Your task to perform on an android device: How much does a 3 bedroom apartment rent for in Seattle? Image 0: 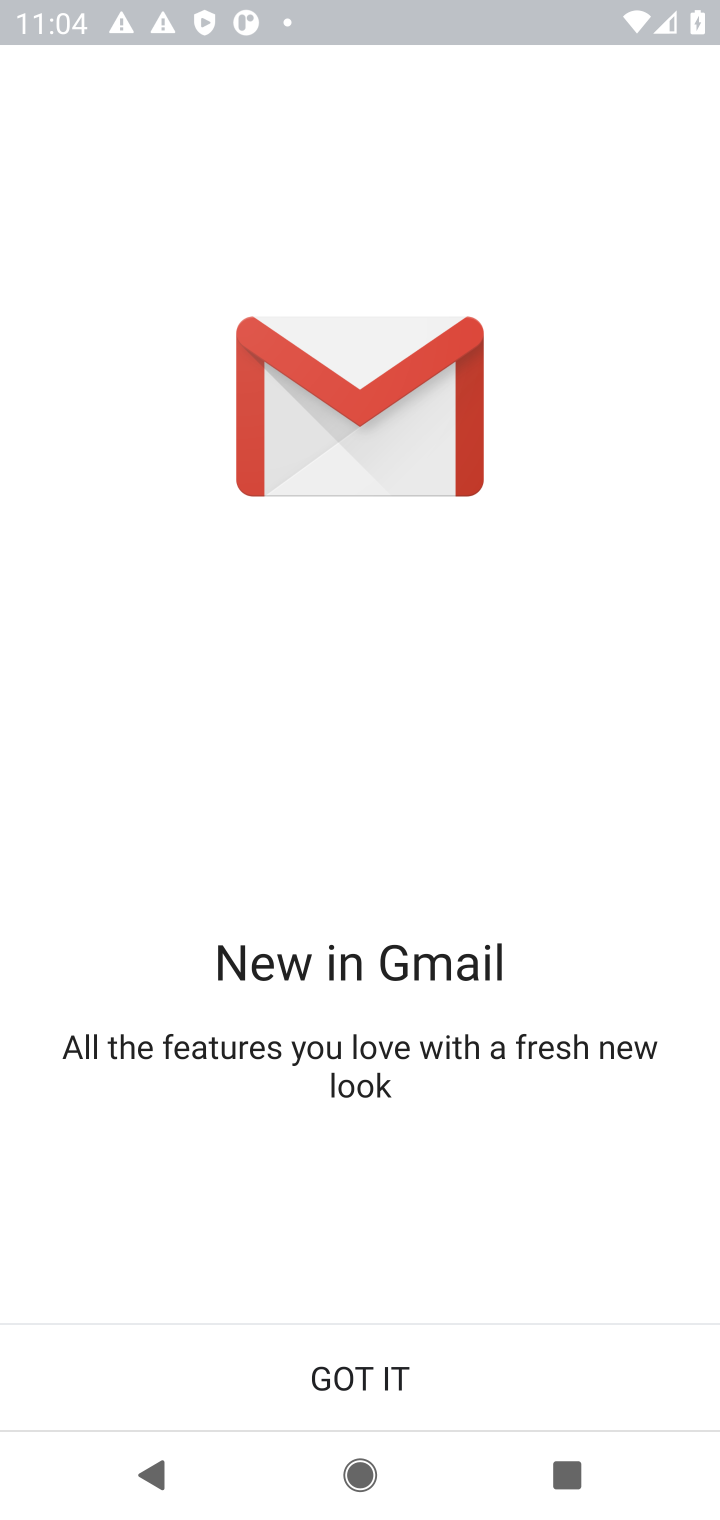
Step 0: press home button
Your task to perform on an android device: How much does a 3 bedroom apartment rent for in Seattle? Image 1: 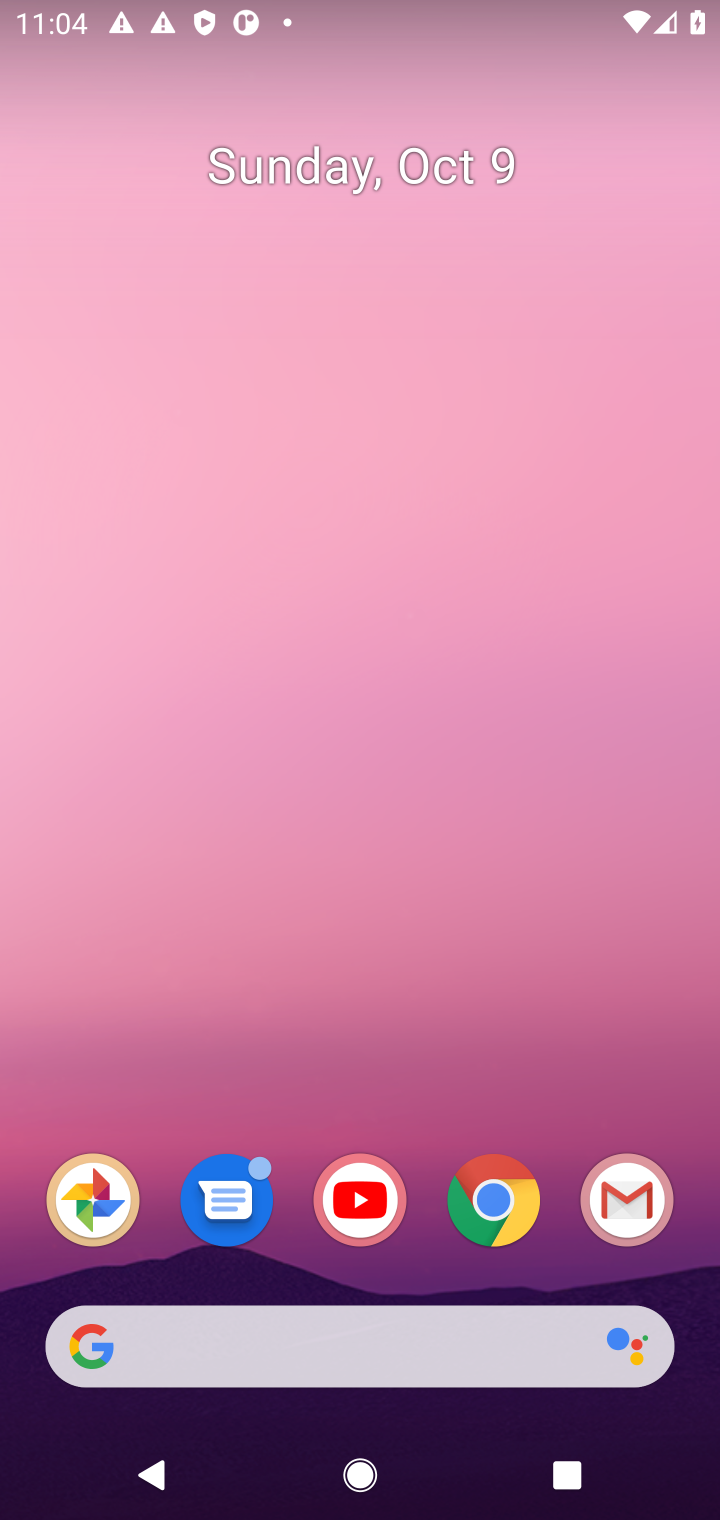
Step 1: click (506, 1193)
Your task to perform on an android device: How much does a 3 bedroom apartment rent for in Seattle? Image 2: 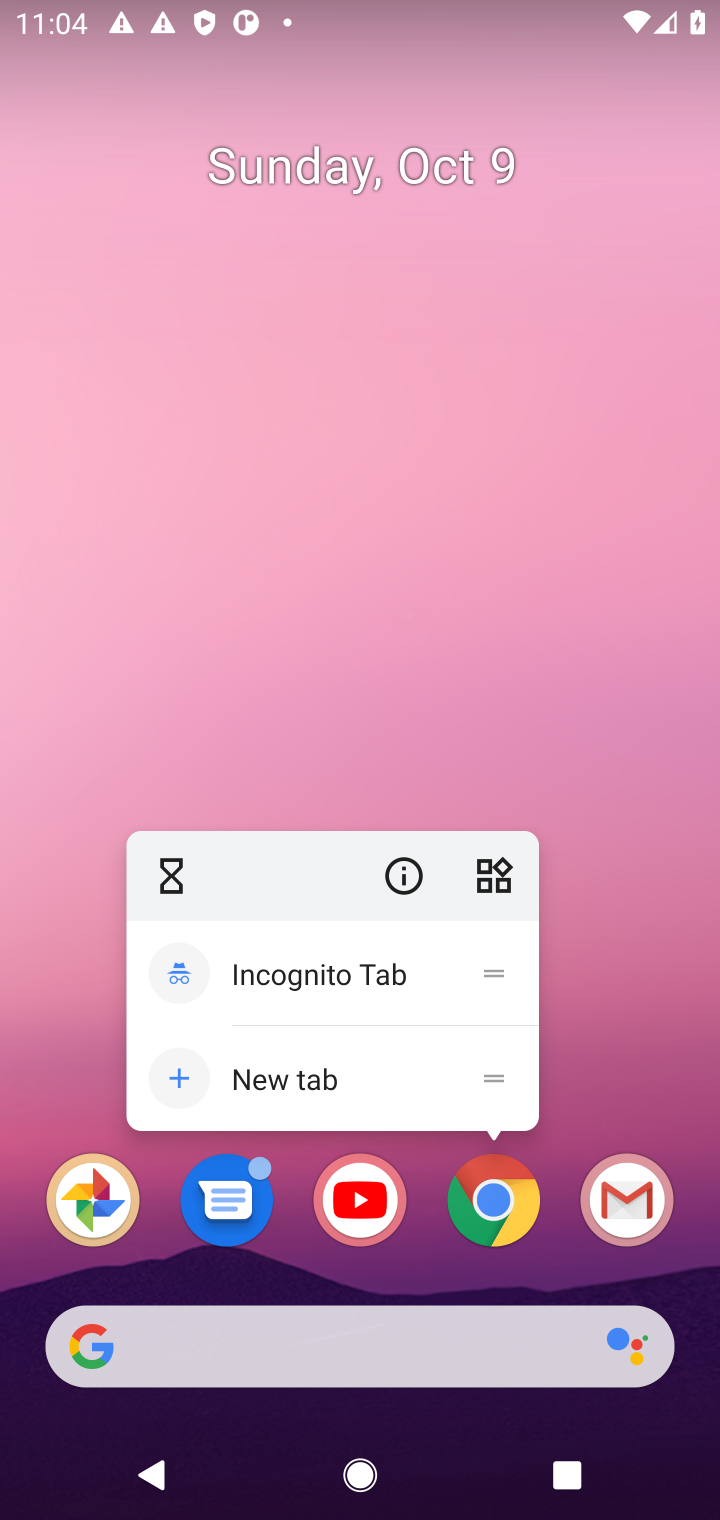
Step 2: click (478, 1227)
Your task to perform on an android device: How much does a 3 bedroom apartment rent for in Seattle? Image 3: 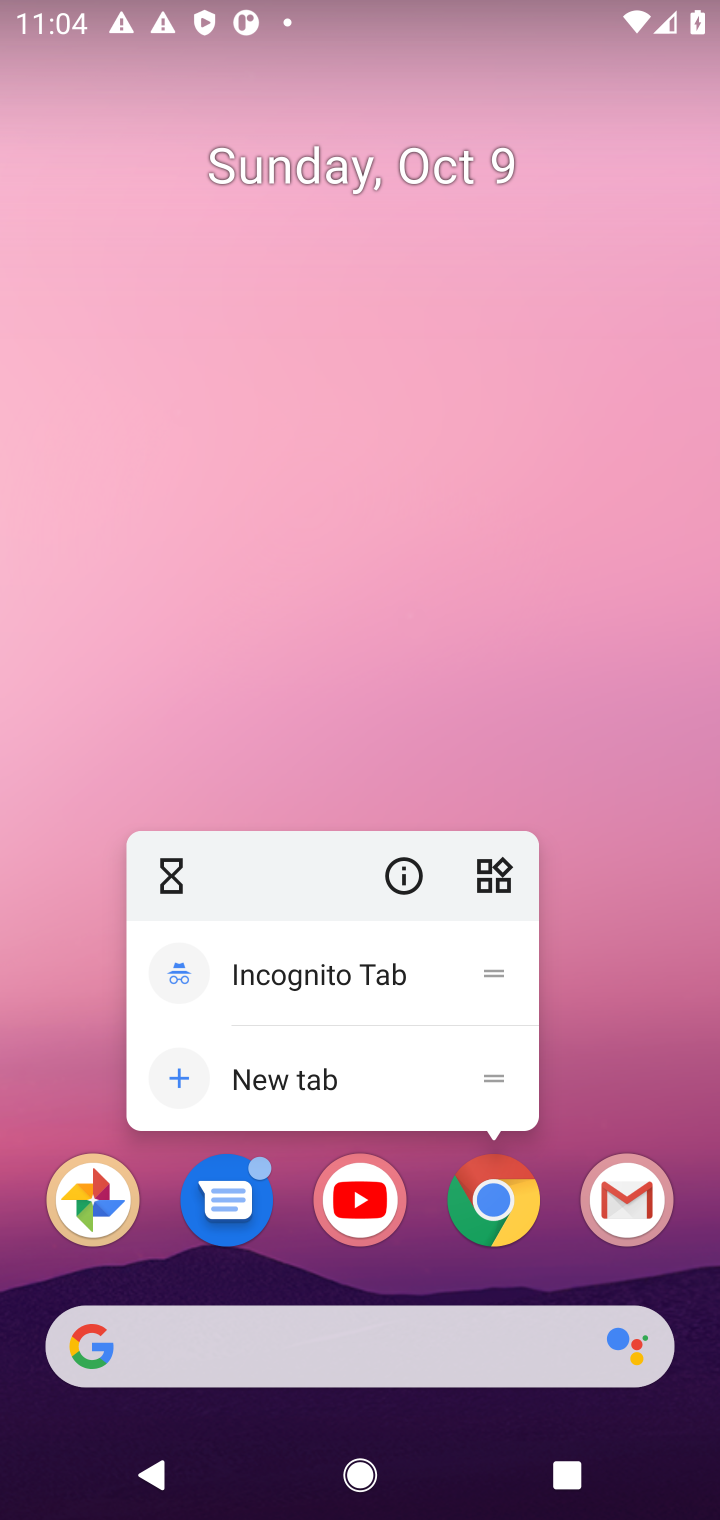
Step 3: click (504, 1222)
Your task to perform on an android device: How much does a 3 bedroom apartment rent for in Seattle? Image 4: 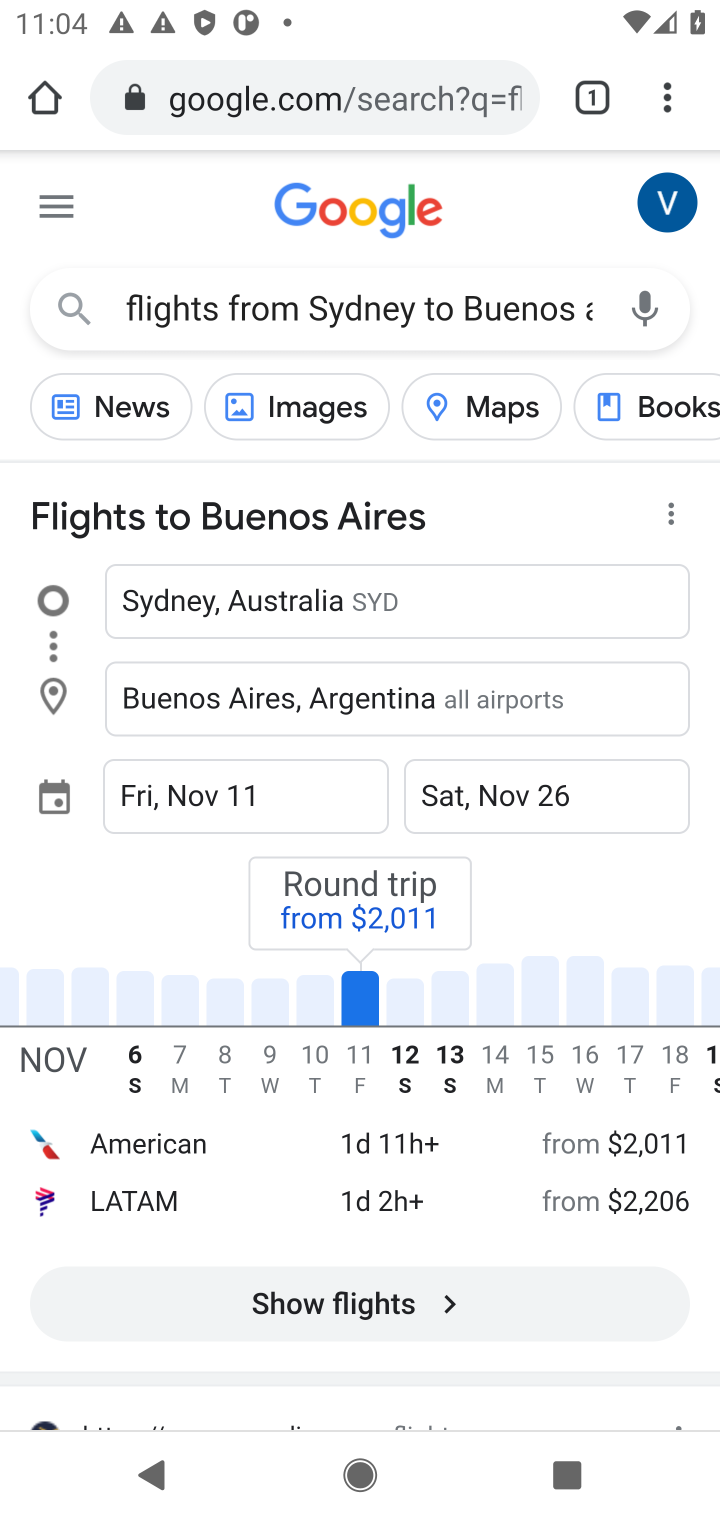
Step 4: click (340, 77)
Your task to perform on an android device: How much does a 3 bedroom apartment rent for in Seattle? Image 5: 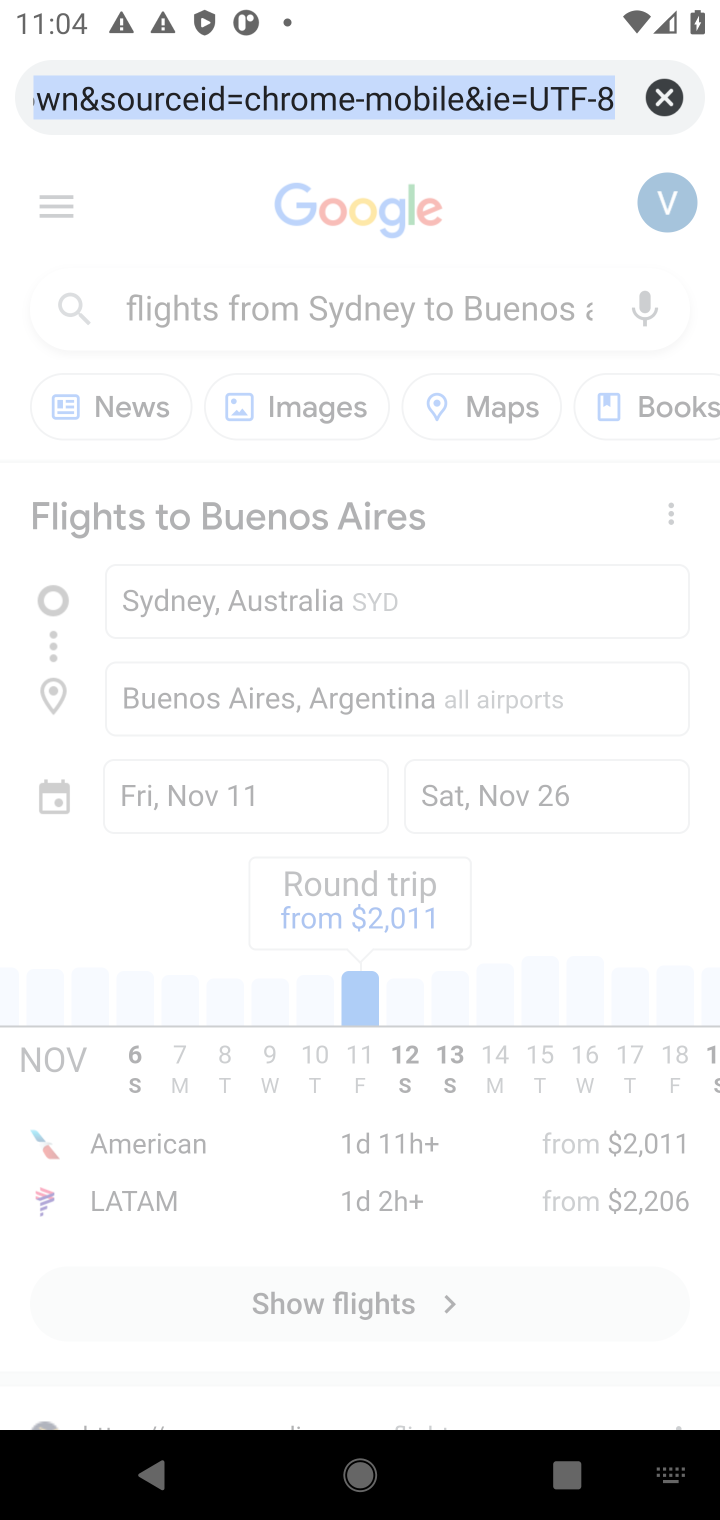
Step 5: type "How much does a 3 bedroom apartment rent for in Seattle?"
Your task to perform on an android device: How much does a 3 bedroom apartment rent for in Seattle? Image 6: 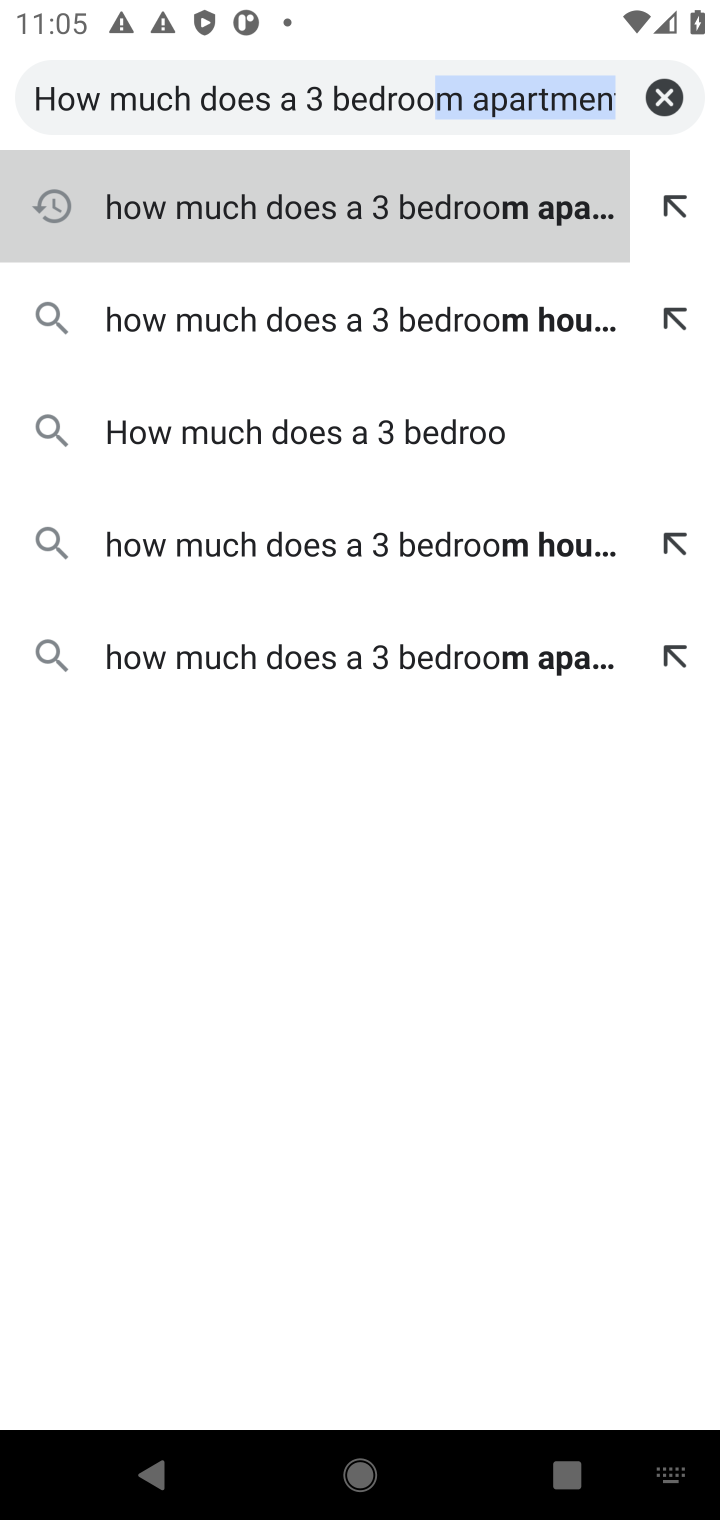
Step 6: click (210, 176)
Your task to perform on an android device: How much does a 3 bedroom apartment rent for in Seattle? Image 7: 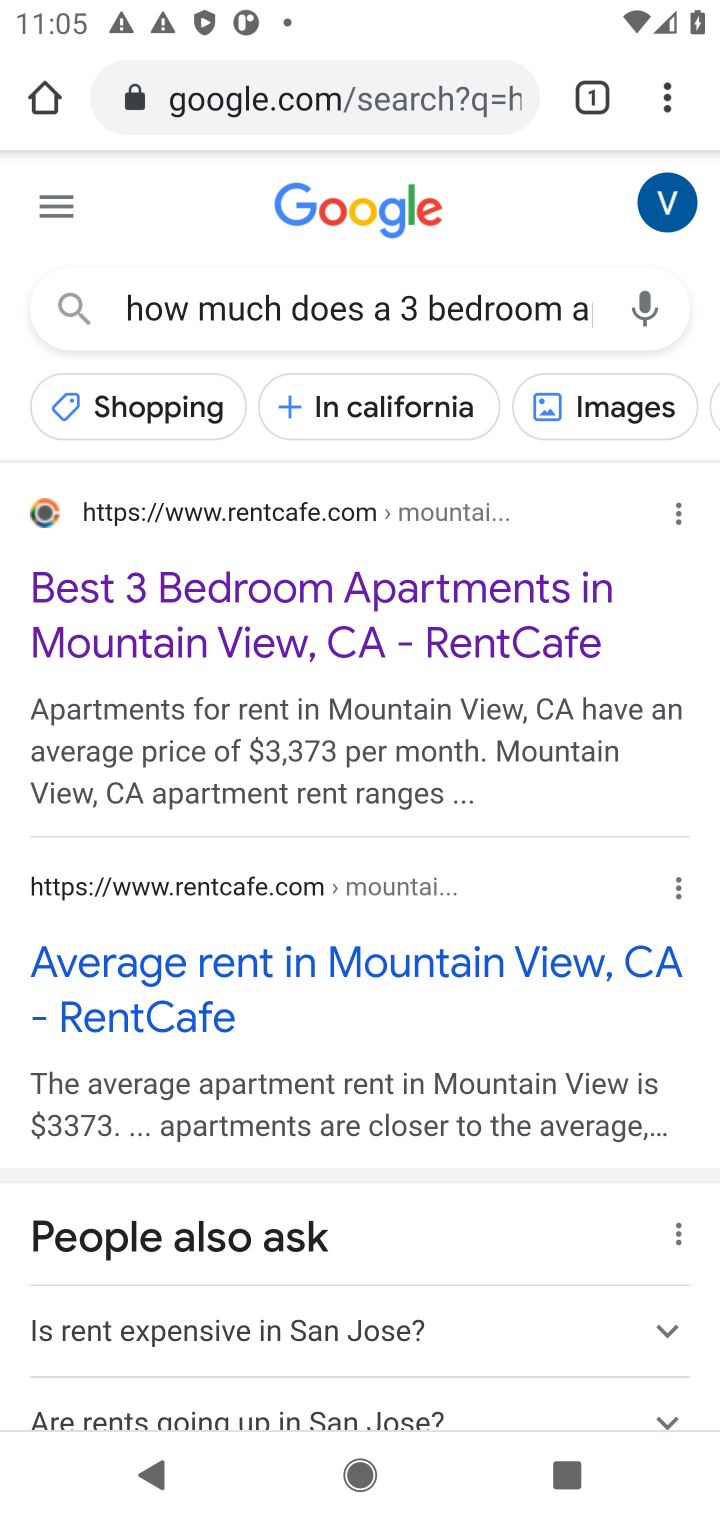
Step 7: click (326, 629)
Your task to perform on an android device: How much does a 3 bedroom apartment rent for in Seattle? Image 8: 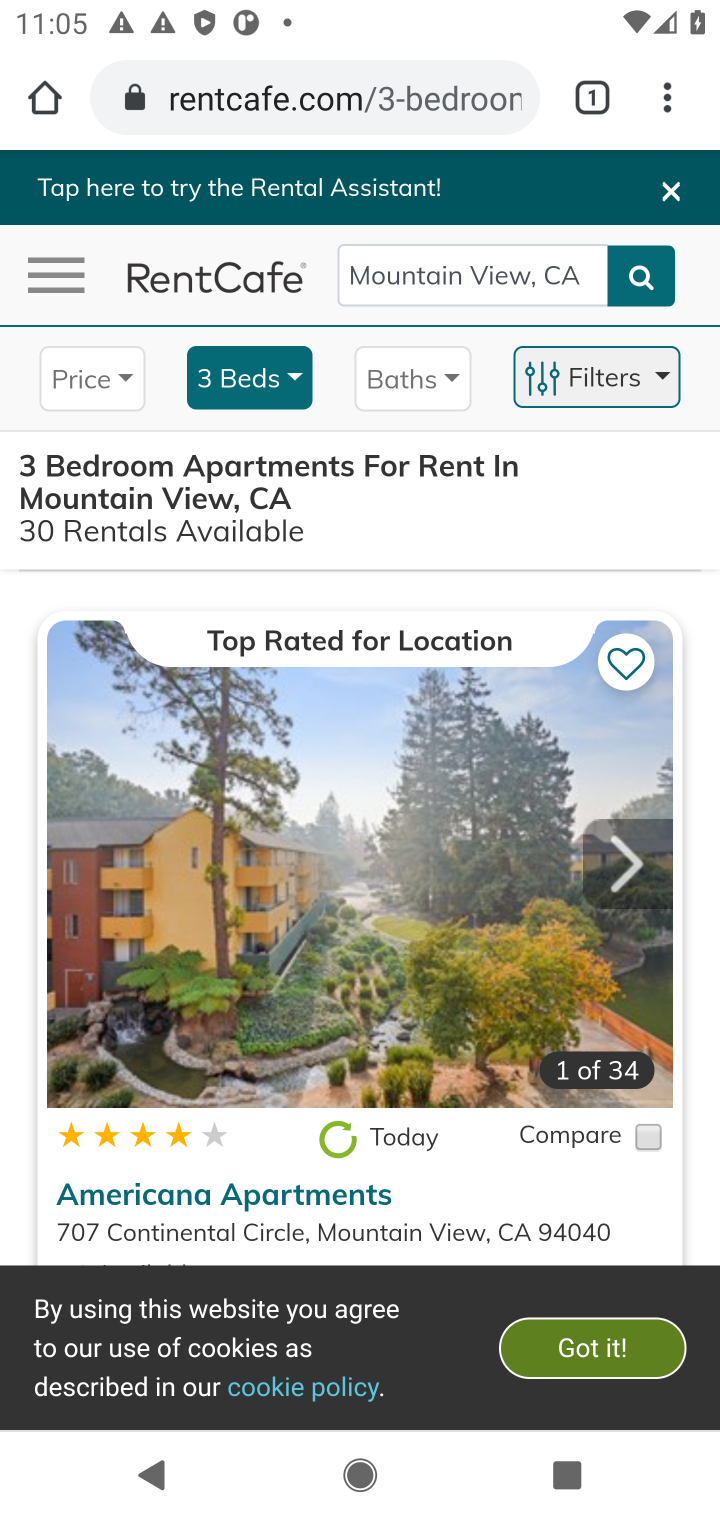
Step 8: task complete